Your task to perform on an android device: Show me the alarms in the clock app Image 0: 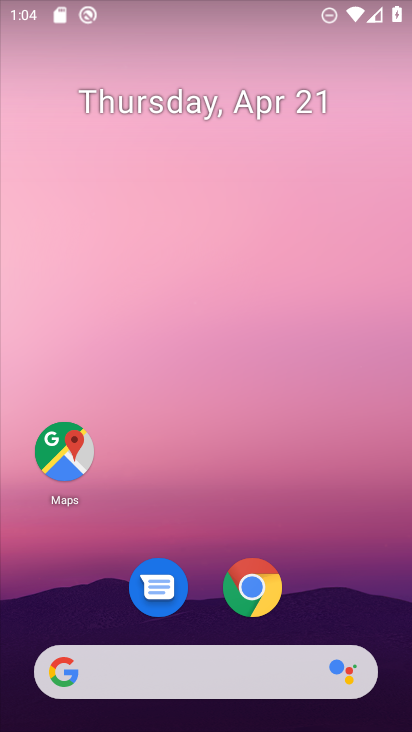
Step 0: drag from (318, 587) to (320, 169)
Your task to perform on an android device: Show me the alarms in the clock app Image 1: 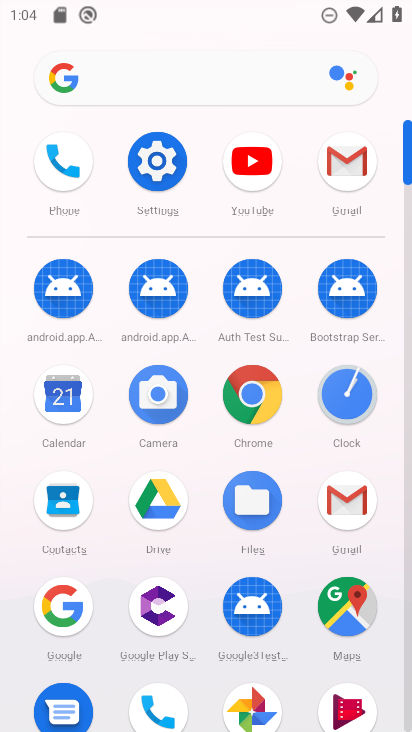
Step 1: click (344, 388)
Your task to perform on an android device: Show me the alarms in the clock app Image 2: 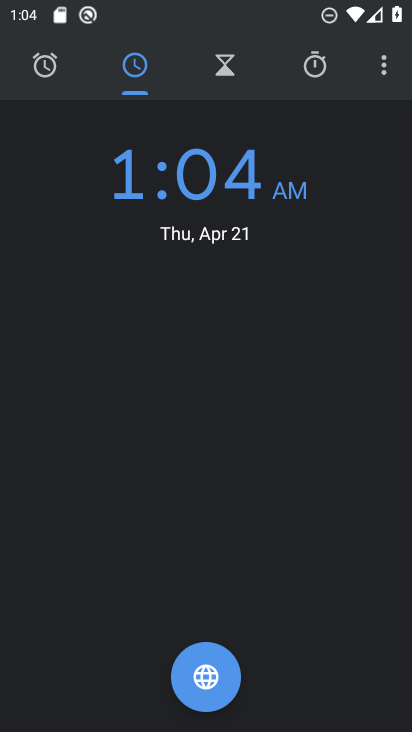
Step 2: click (50, 65)
Your task to perform on an android device: Show me the alarms in the clock app Image 3: 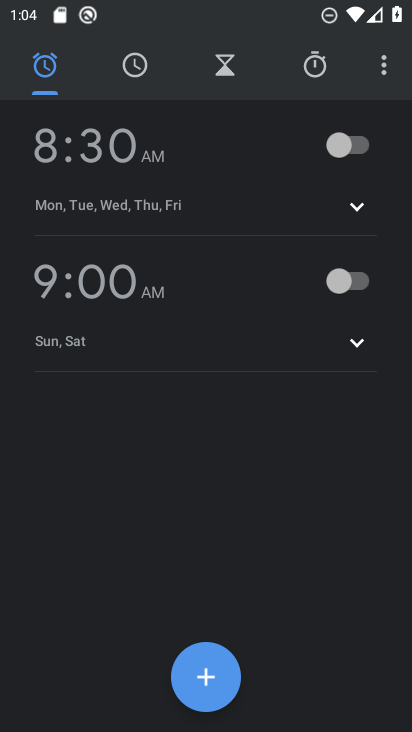
Step 3: task complete